Your task to perform on an android device: Go to network settings Image 0: 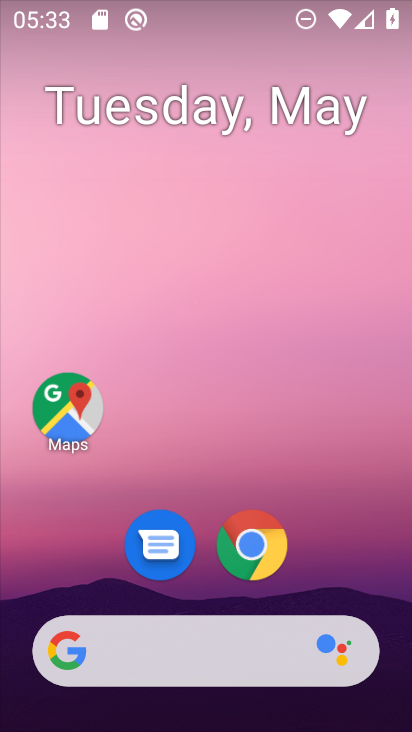
Step 0: drag from (353, 560) to (270, 64)
Your task to perform on an android device: Go to network settings Image 1: 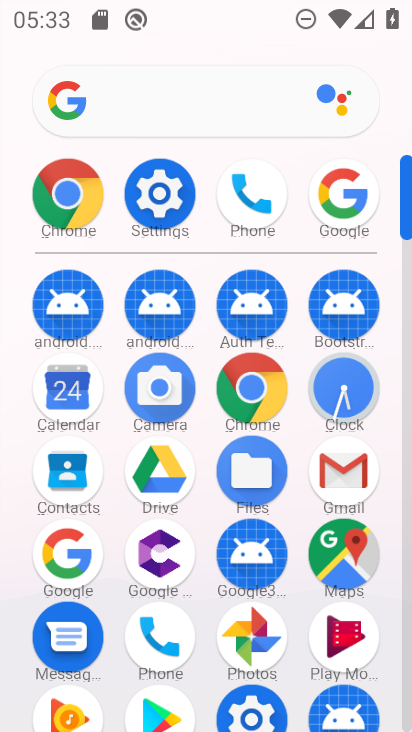
Step 1: click (161, 198)
Your task to perform on an android device: Go to network settings Image 2: 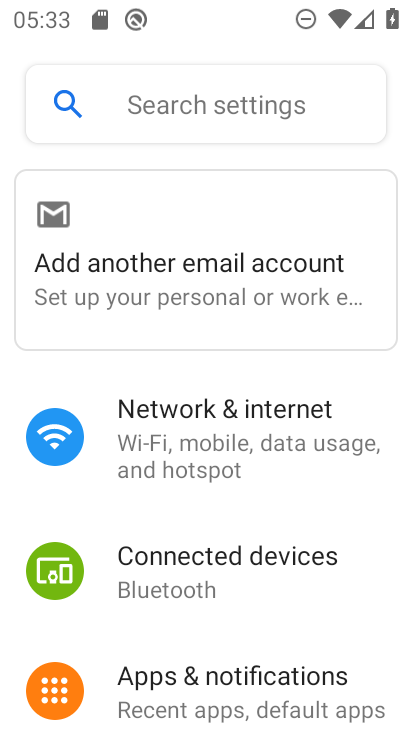
Step 2: drag from (224, 568) to (267, 123)
Your task to perform on an android device: Go to network settings Image 3: 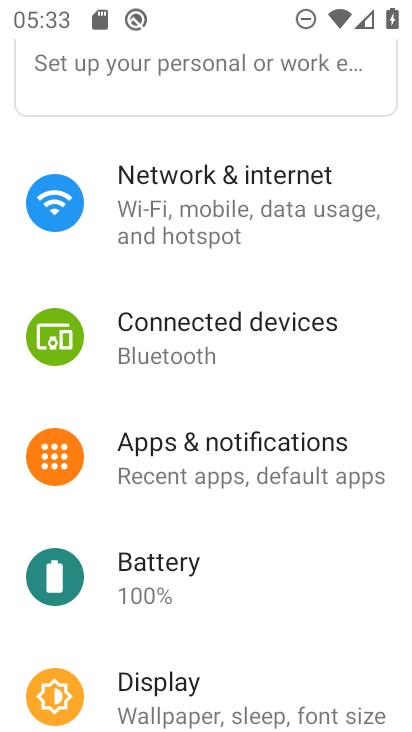
Step 3: drag from (278, 634) to (321, 216)
Your task to perform on an android device: Go to network settings Image 4: 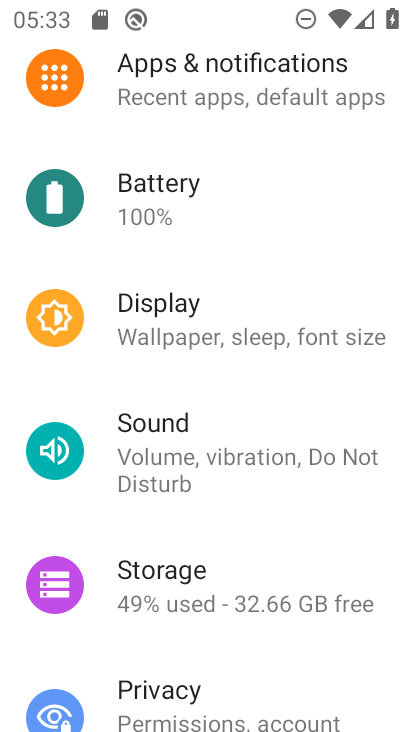
Step 4: drag from (297, 117) to (267, 586)
Your task to perform on an android device: Go to network settings Image 5: 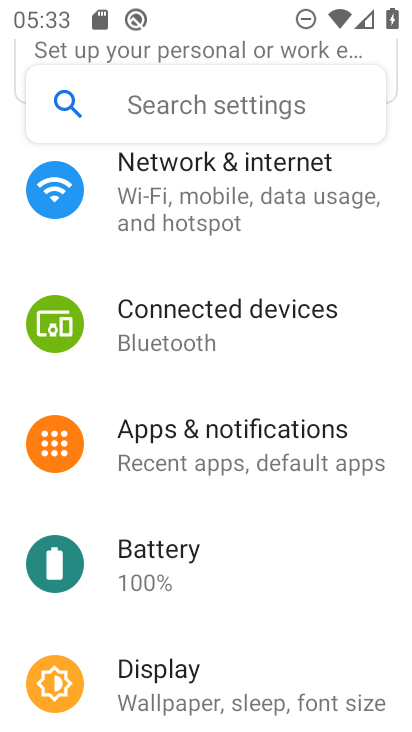
Step 5: drag from (253, 198) to (260, 517)
Your task to perform on an android device: Go to network settings Image 6: 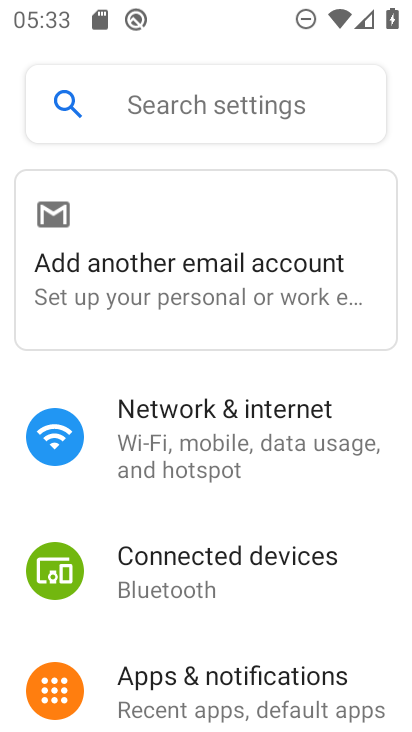
Step 6: click (210, 411)
Your task to perform on an android device: Go to network settings Image 7: 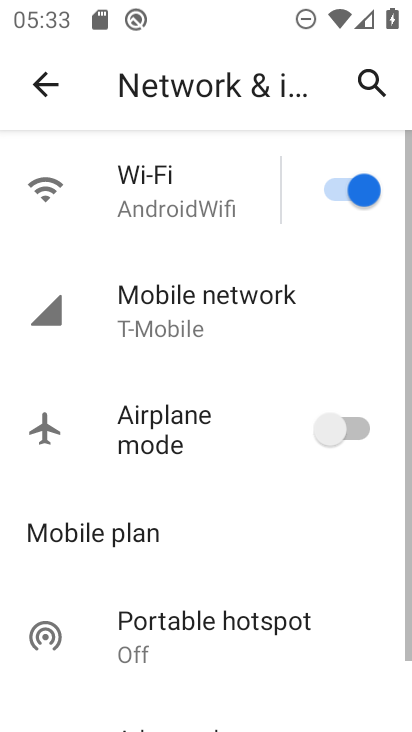
Step 7: drag from (149, 620) to (187, 199)
Your task to perform on an android device: Go to network settings Image 8: 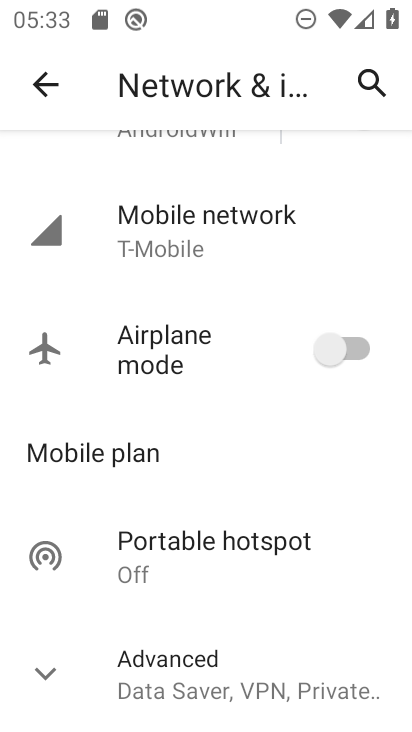
Step 8: drag from (220, 603) to (223, 163)
Your task to perform on an android device: Go to network settings Image 9: 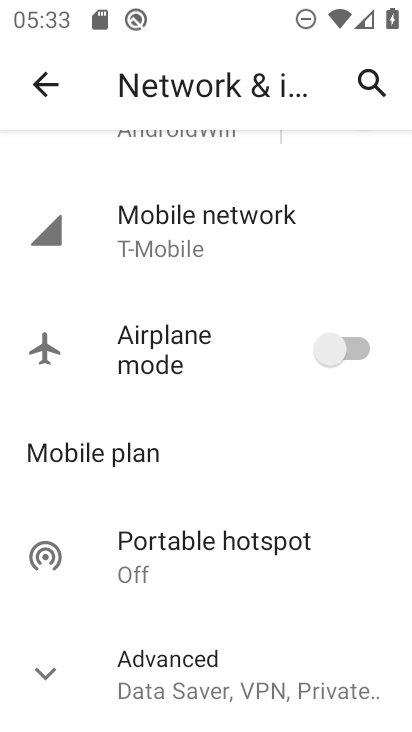
Step 9: drag from (210, 612) to (215, 217)
Your task to perform on an android device: Go to network settings Image 10: 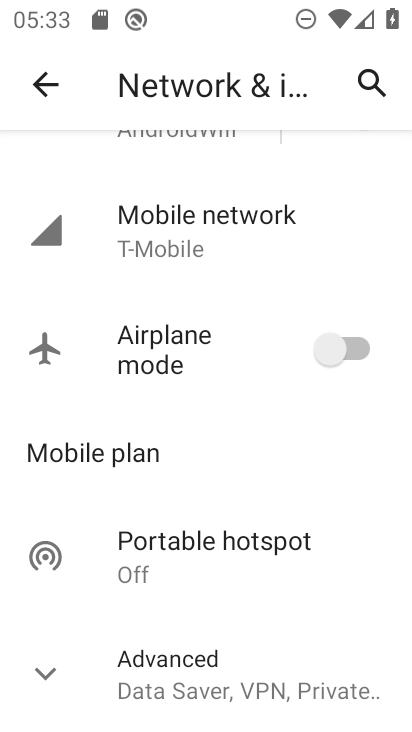
Step 10: click (69, 677)
Your task to perform on an android device: Go to network settings Image 11: 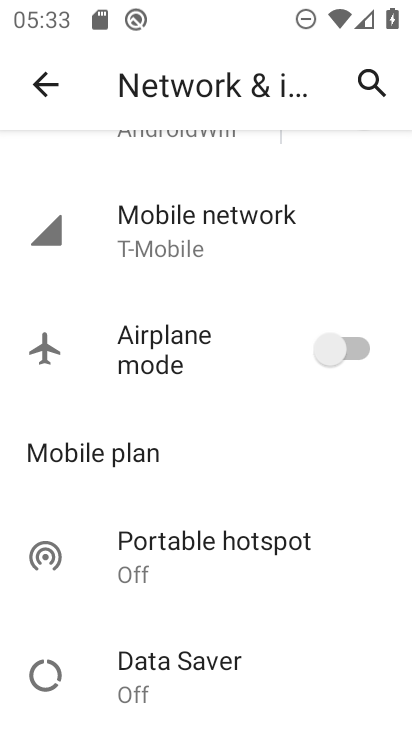
Step 11: task complete